Your task to perform on an android device: Search for sushi restaurants on Maps Image 0: 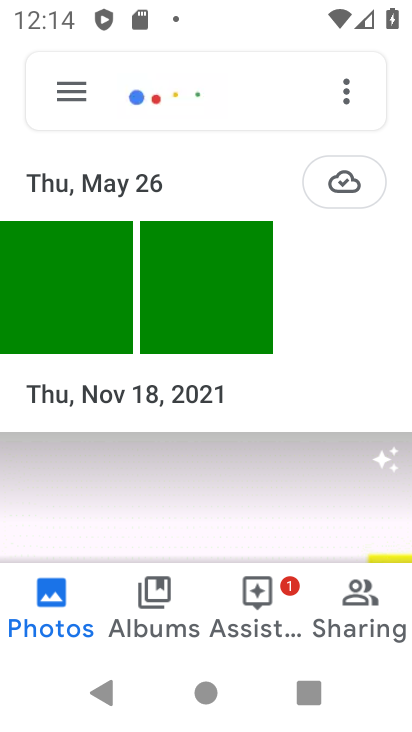
Step 0: press back button
Your task to perform on an android device: Search for sushi restaurants on Maps Image 1: 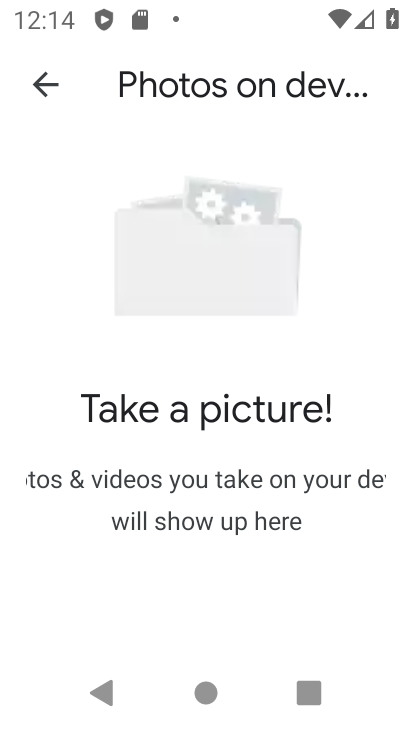
Step 1: press back button
Your task to perform on an android device: Search for sushi restaurants on Maps Image 2: 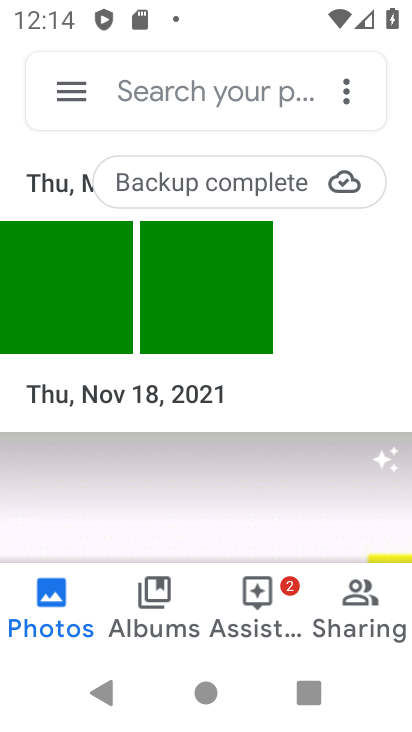
Step 2: press back button
Your task to perform on an android device: Search for sushi restaurants on Maps Image 3: 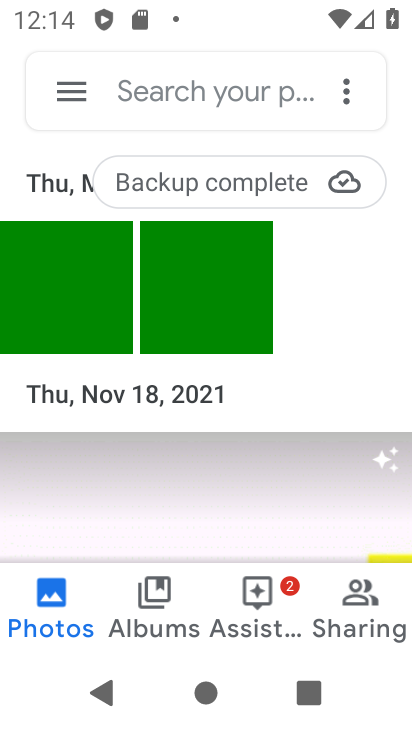
Step 3: press home button
Your task to perform on an android device: Search for sushi restaurants on Maps Image 4: 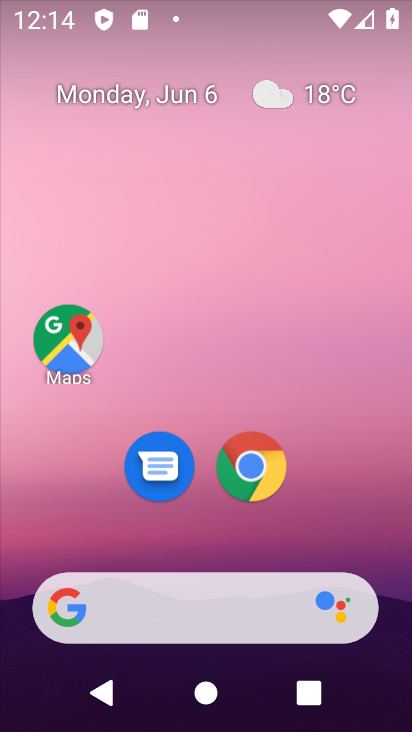
Step 4: click (57, 339)
Your task to perform on an android device: Search for sushi restaurants on Maps Image 5: 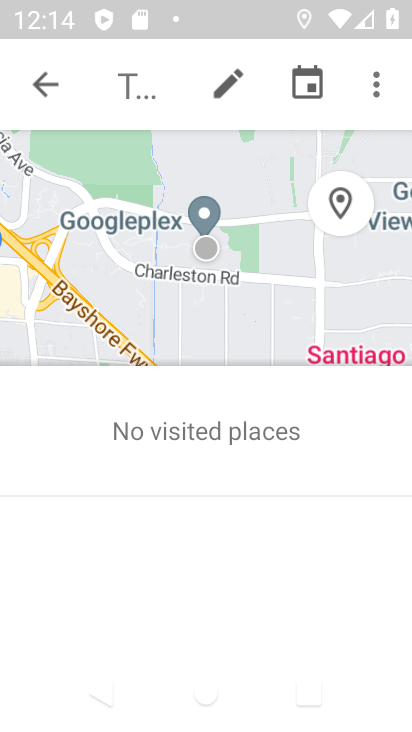
Step 5: click (49, 77)
Your task to perform on an android device: Search for sushi restaurants on Maps Image 6: 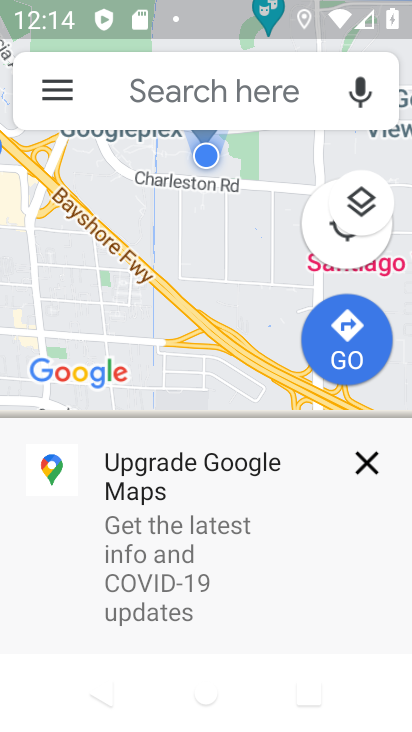
Step 6: click (304, 100)
Your task to perform on an android device: Search for sushi restaurants on Maps Image 7: 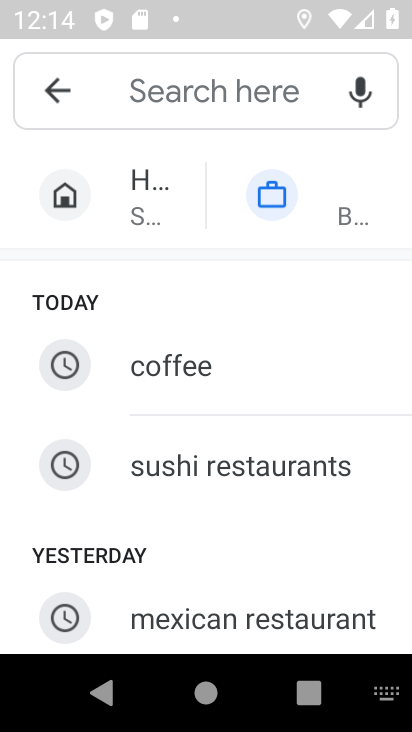
Step 7: click (291, 472)
Your task to perform on an android device: Search for sushi restaurants on Maps Image 8: 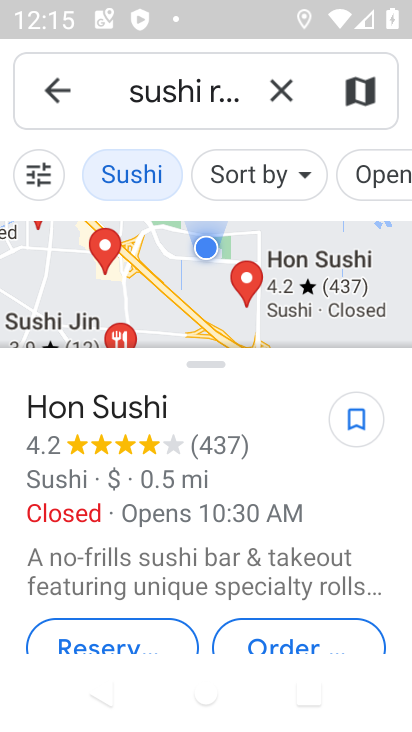
Step 8: task complete